Your task to perform on an android device: What is the recent news? Image 0: 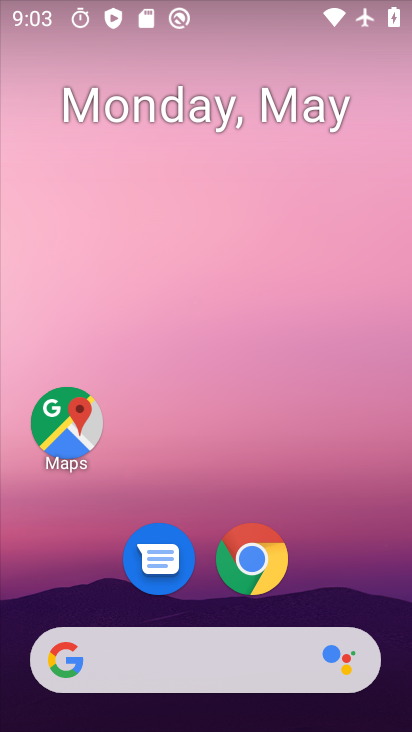
Step 0: click (237, 661)
Your task to perform on an android device: What is the recent news? Image 1: 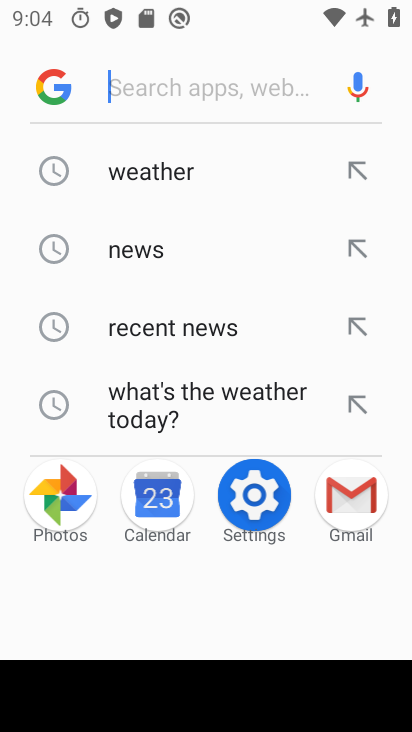
Step 1: type "what is the recent news"
Your task to perform on an android device: What is the recent news? Image 2: 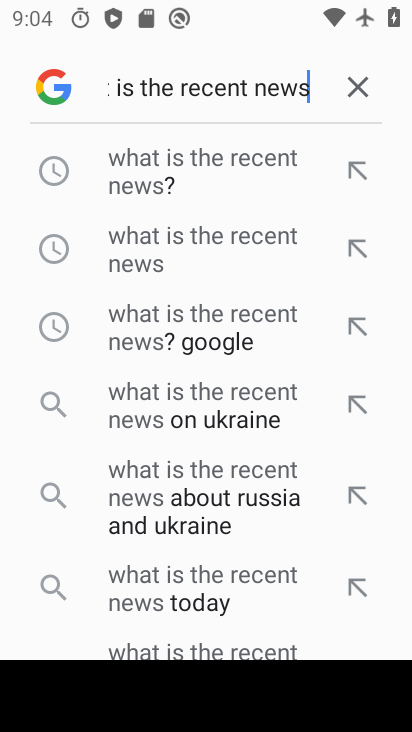
Step 2: click (143, 183)
Your task to perform on an android device: What is the recent news? Image 3: 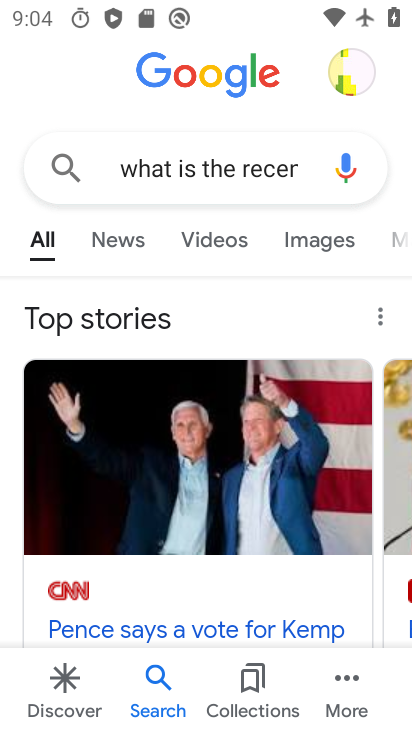
Step 3: click (124, 247)
Your task to perform on an android device: What is the recent news? Image 4: 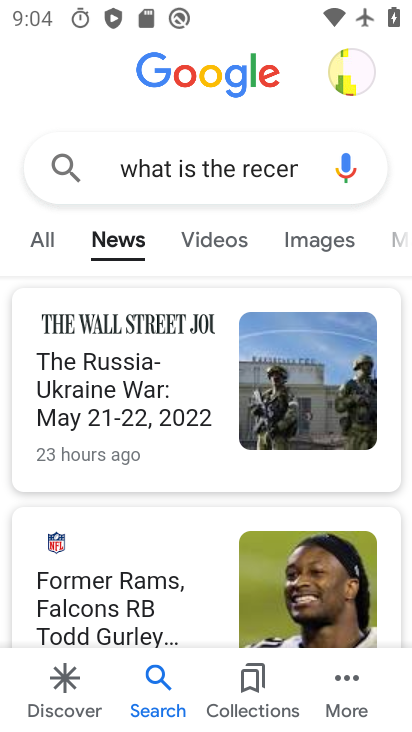
Step 4: task complete